Your task to perform on an android device: Search for Italian restaurants on Maps Image 0: 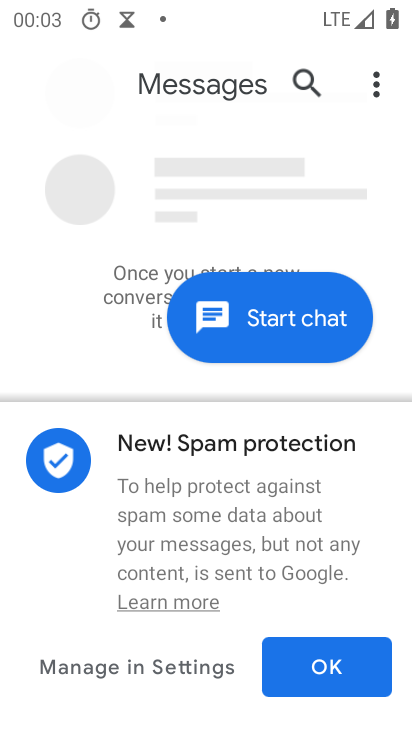
Step 0: drag from (333, 590) to (403, 378)
Your task to perform on an android device: Search for Italian restaurants on Maps Image 1: 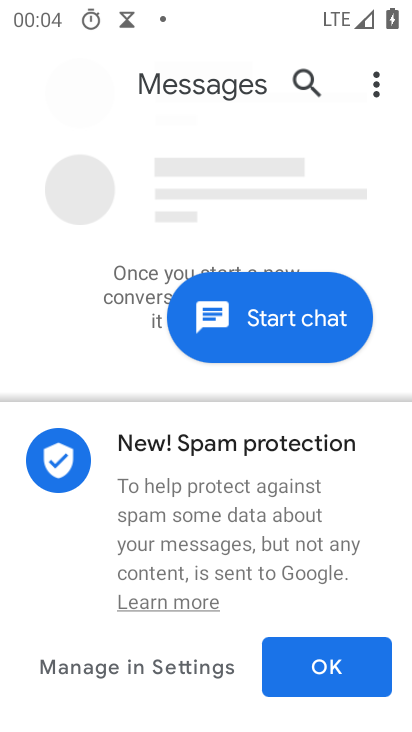
Step 1: press home button
Your task to perform on an android device: Search for Italian restaurants on Maps Image 2: 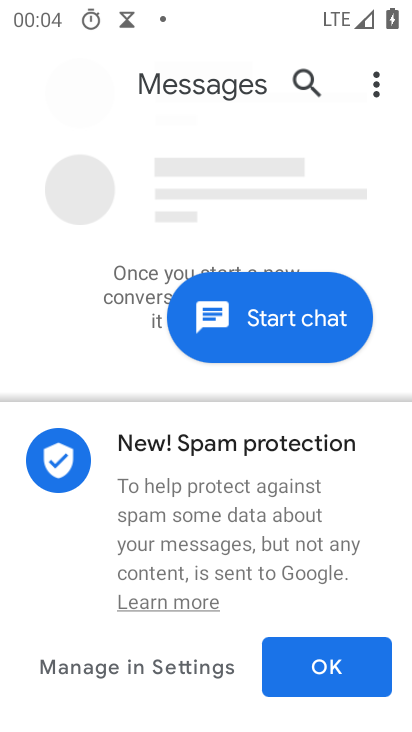
Step 2: click (406, 382)
Your task to perform on an android device: Search for Italian restaurants on Maps Image 3: 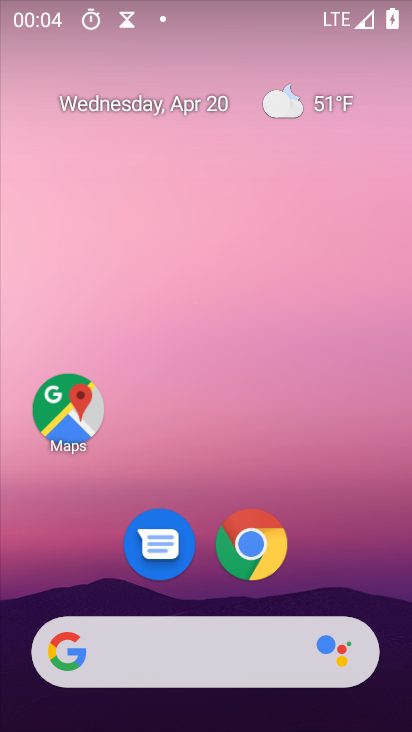
Step 3: drag from (299, 576) to (338, 66)
Your task to perform on an android device: Search for Italian restaurants on Maps Image 4: 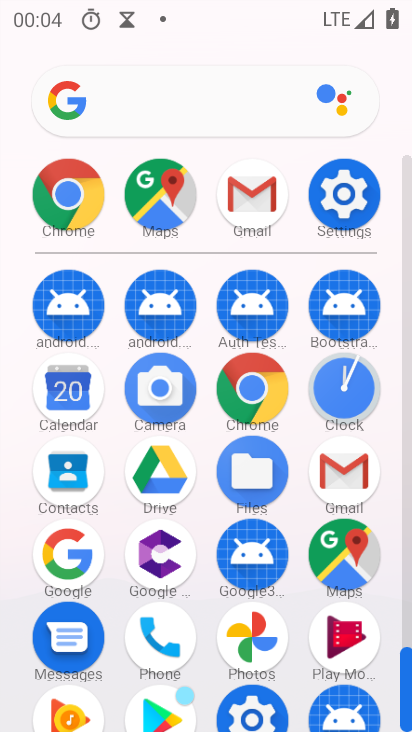
Step 4: click (341, 551)
Your task to perform on an android device: Search for Italian restaurants on Maps Image 5: 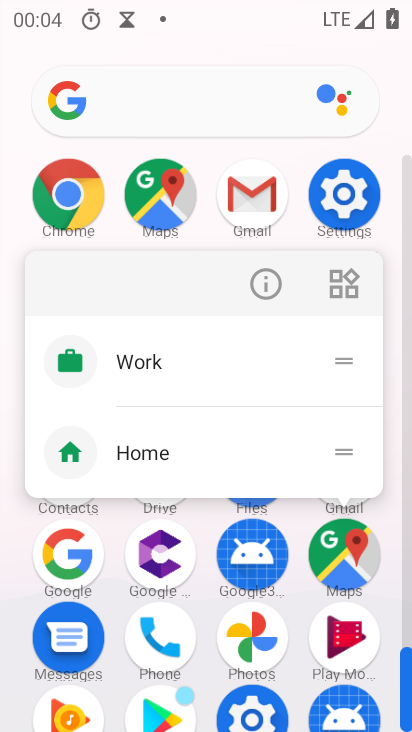
Step 5: click (341, 551)
Your task to perform on an android device: Search for Italian restaurants on Maps Image 6: 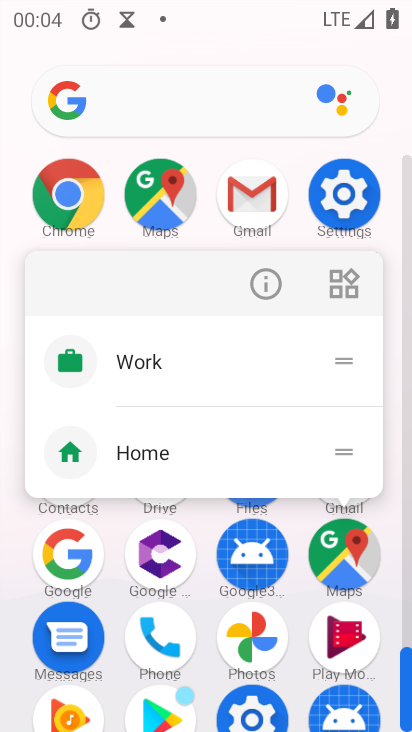
Step 6: click (341, 551)
Your task to perform on an android device: Search for Italian restaurants on Maps Image 7: 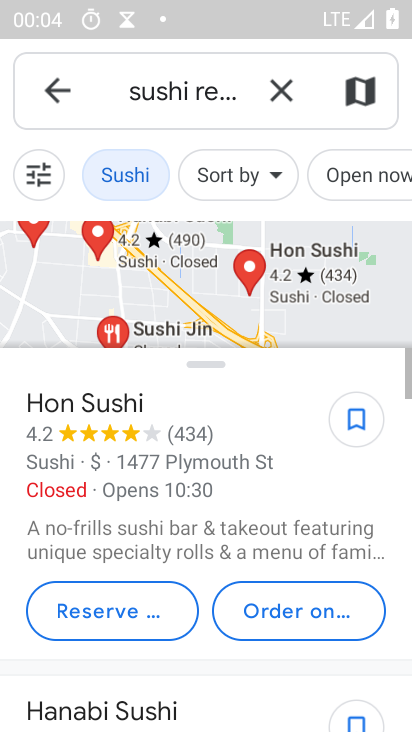
Step 7: click (172, 104)
Your task to perform on an android device: Search for Italian restaurants on Maps Image 8: 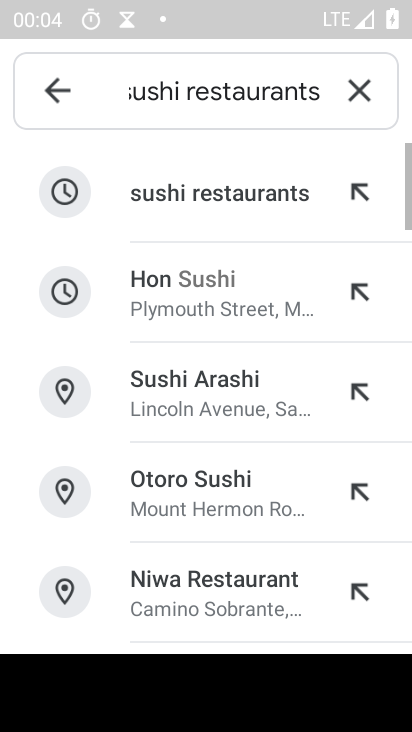
Step 8: click (345, 76)
Your task to perform on an android device: Search for Italian restaurants on Maps Image 9: 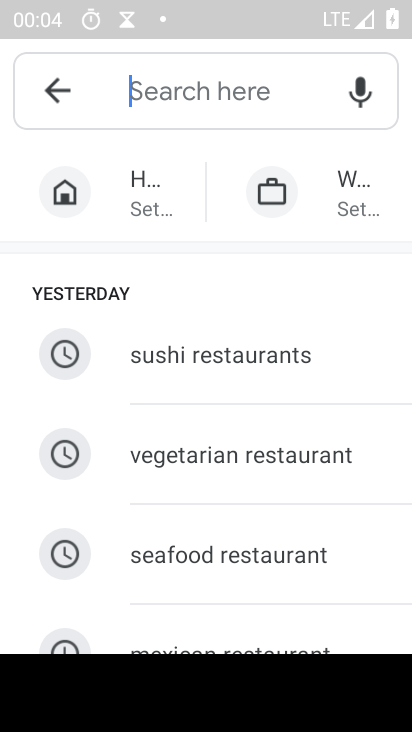
Step 9: type "italian restaurants"
Your task to perform on an android device: Search for Italian restaurants on Maps Image 10: 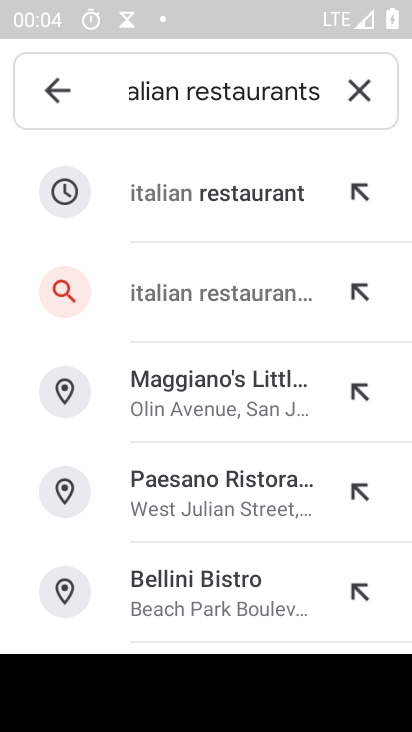
Step 10: click (219, 297)
Your task to perform on an android device: Search for Italian restaurants on Maps Image 11: 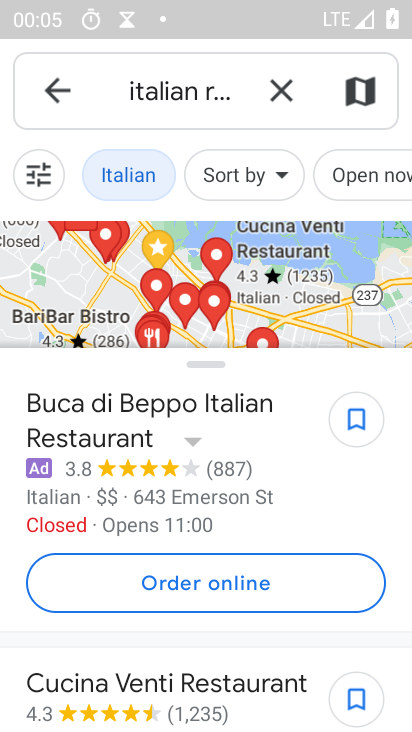
Step 11: task complete